Your task to perform on an android device: turn on notifications settings in the gmail app Image 0: 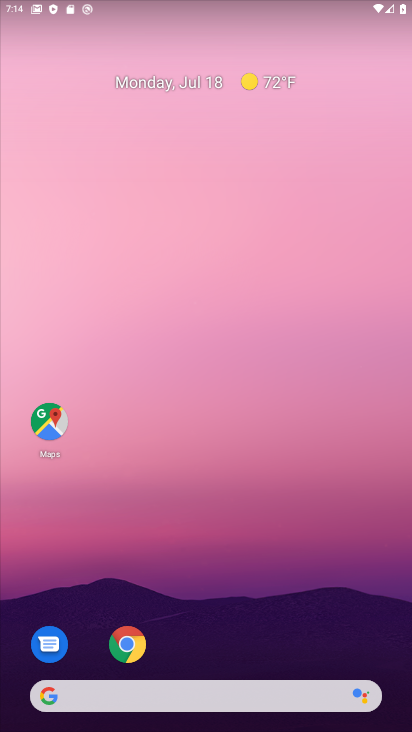
Step 0: drag from (383, 646) to (215, 24)
Your task to perform on an android device: turn on notifications settings in the gmail app Image 1: 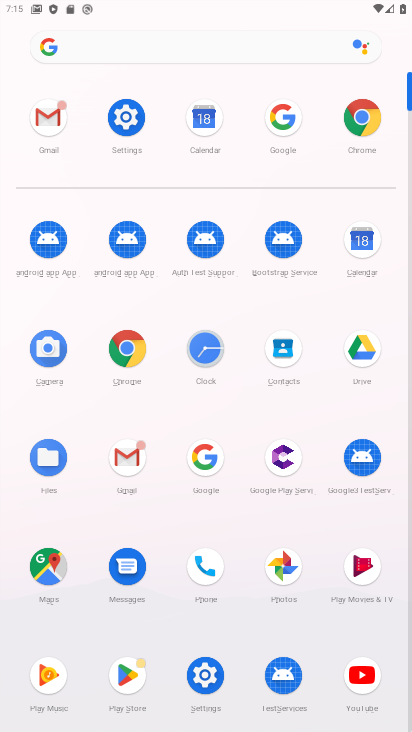
Step 1: click (130, 453)
Your task to perform on an android device: turn on notifications settings in the gmail app Image 2: 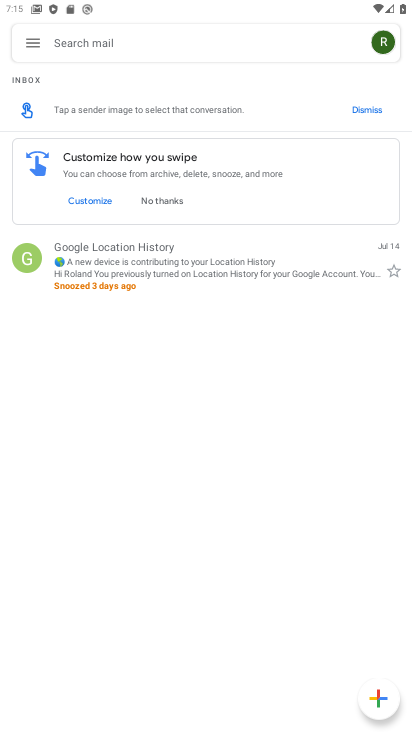
Step 2: click (31, 39)
Your task to perform on an android device: turn on notifications settings in the gmail app Image 3: 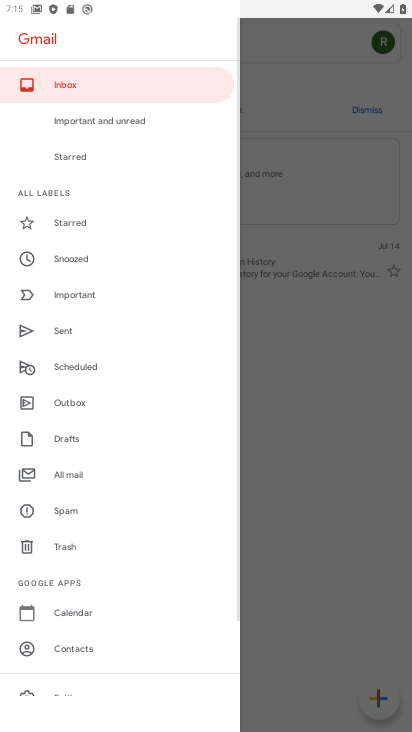
Step 3: drag from (69, 640) to (113, 62)
Your task to perform on an android device: turn on notifications settings in the gmail app Image 4: 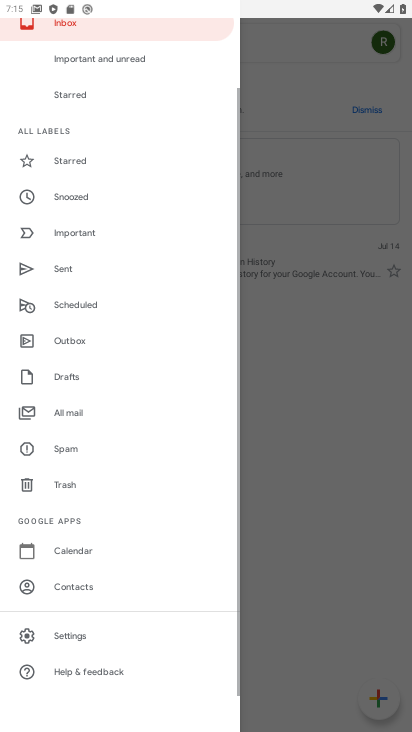
Step 4: click (54, 635)
Your task to perform on an android device: turn on notifications settings in the gmail app Image 5: 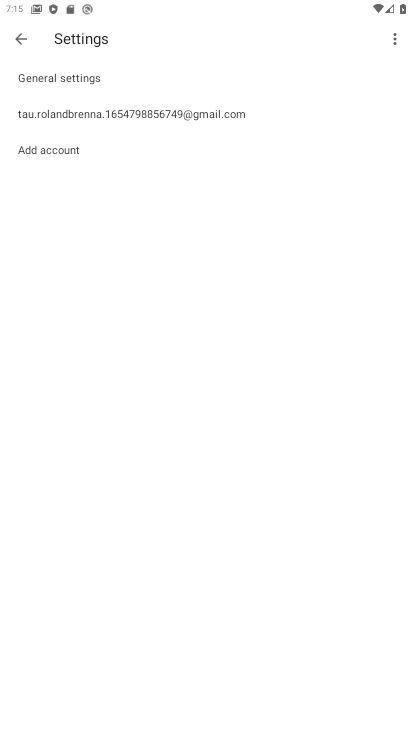
Step 5: click (83, 119)
Your task to perform on an android device: turn on notifications settings in the gmail app Image 6: 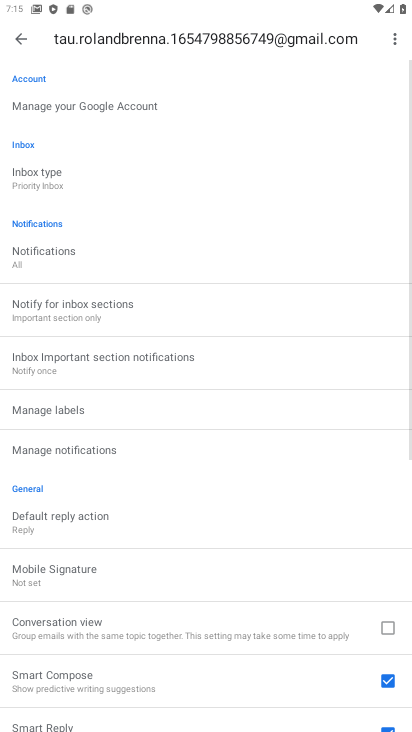
Step 6: click (75, 258)
Your task to perform on an android device: turn on notifications settings in the gmail app Image 7: 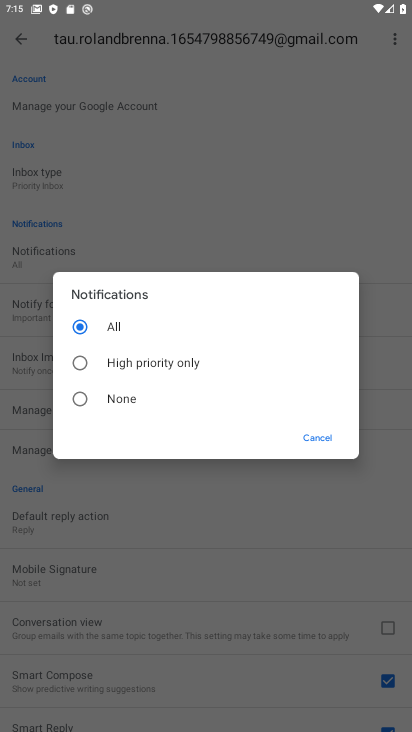
Step 7: task complete